Your task to perform on an android device: Go to sound settings Image 0: 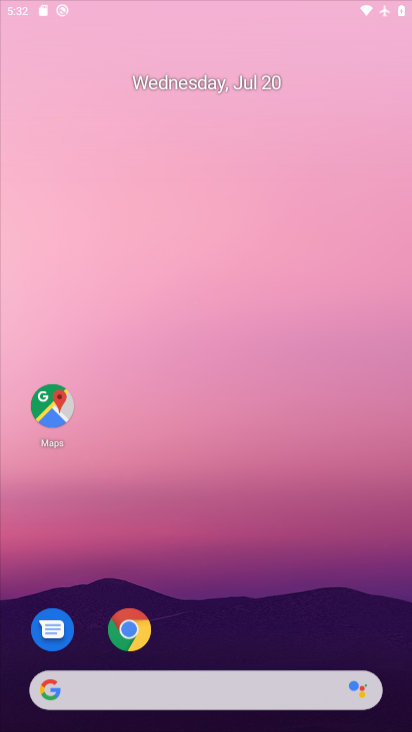
Step 0: press home button
Your task to perform on an android device: Go to sound settings Image 1: 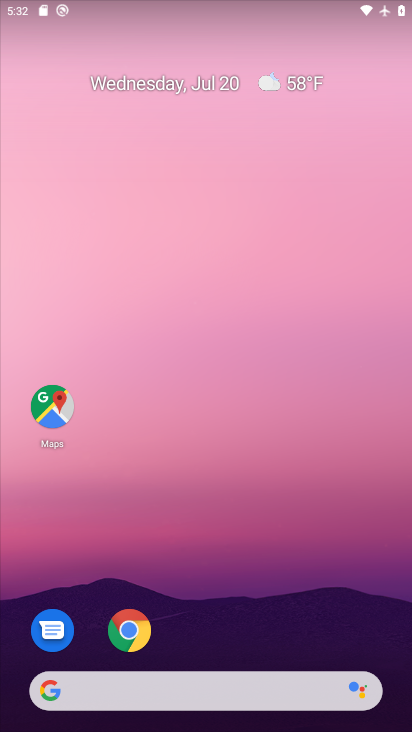
Step 1: drag from (230, 641) to (266, 16)
Your task to perform on an android device: Go to sound settings Image 2: 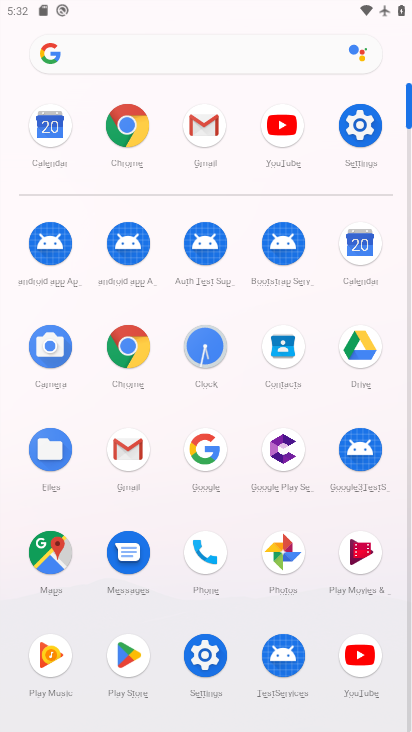
Step 2: click (359, 137)
Your task to perform on an android device: Go to sound settings Image 3: 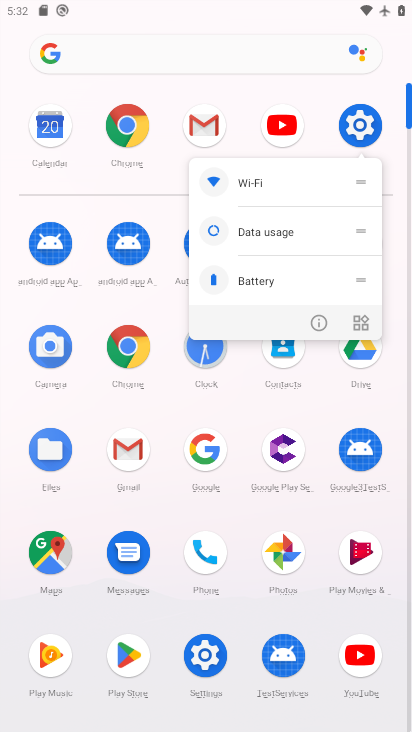
Step 3: click (359, 137)
Your task to perform on an android device: Go to sound settings Image 4: 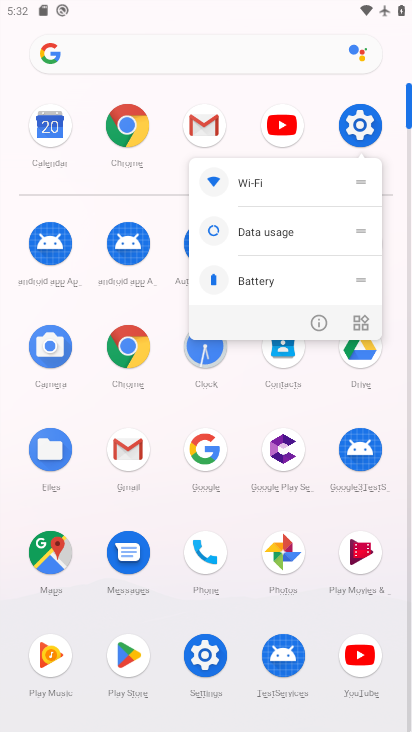
Step 4: click (359, 137)
Your task to perform on an android device: Go to sound settings Image 5: 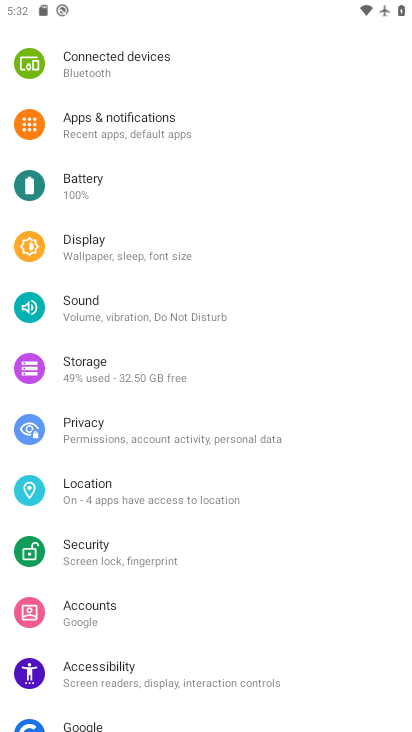
Step 5: click (63, 305)
Your task to perform on an android device: Go to sound settings Image 6: 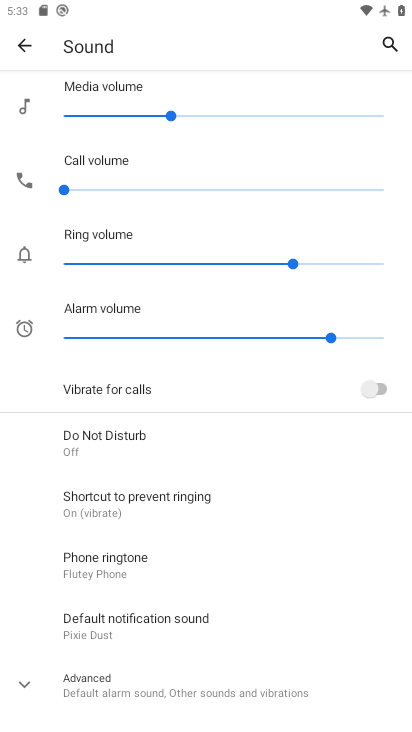
Step 6: task complete